Your task to perform on an android device: turn on javascript in the chrome app Image 0: 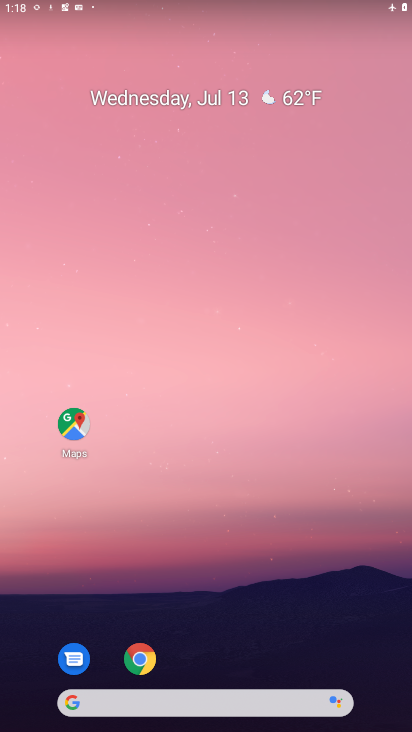
Step 0: drag from (230, 713) to (169, 49)
Your task to perform on an android device: turn on javascript in the chrome app Image 1: 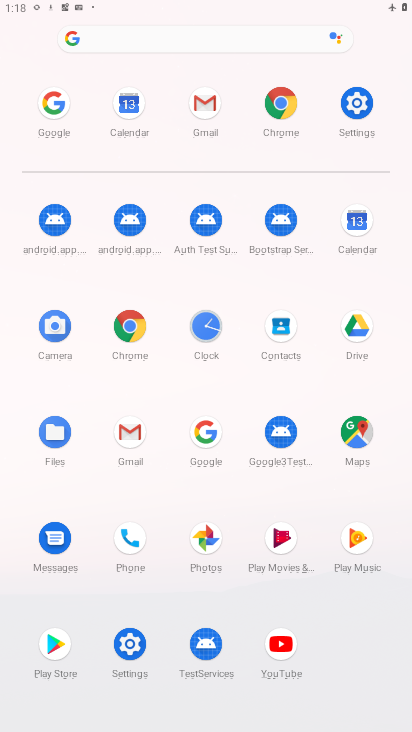
Step 1: click (132, 326)
Your task to perform on an android device: turn on javascript in the chrome app Image 2: 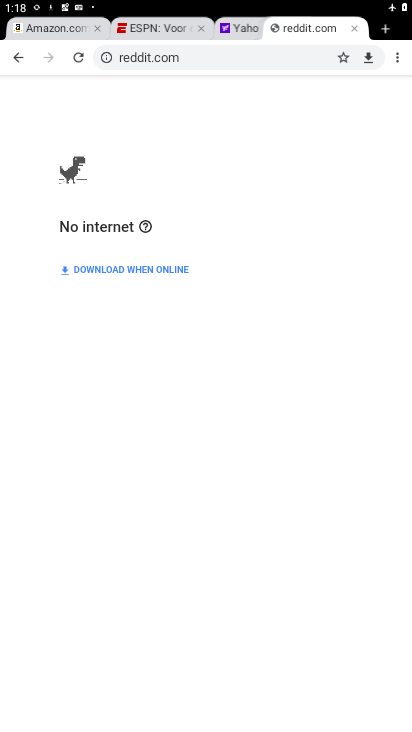
Step 2: click (399, 59)
Your task to perform on an android device: turn on javascript in the chrome app Image 3: 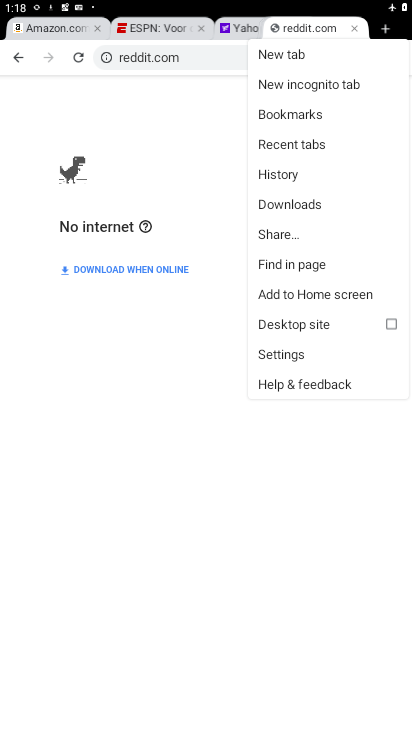
Step 3: click (275, 352)
Your task to perform on an android device: turn on javascript in the chrome app Image 4: 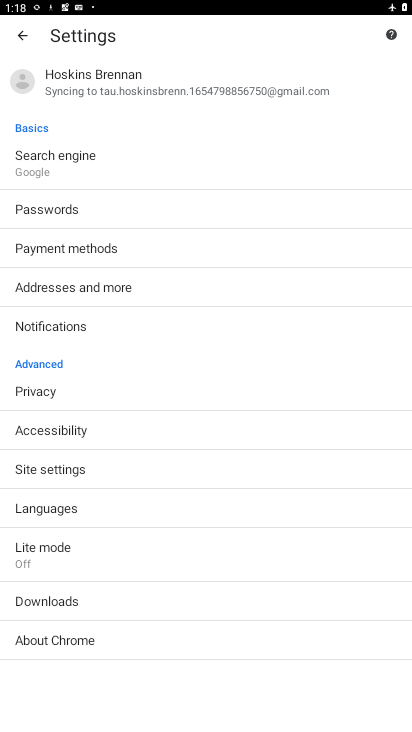
Step 4: click (48, 466)
Your task to perform on an android device: turn on javascript in the chrome app Image 5: 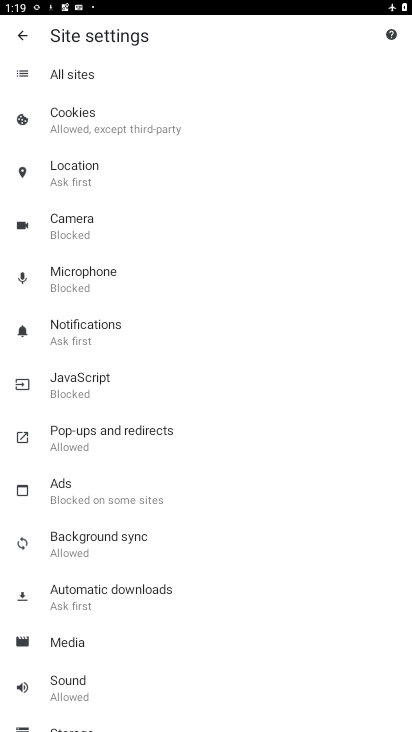
Step 5: click (75, 383)
Your task to perform on an android device: turn on javascript in the chrome app Image 6: 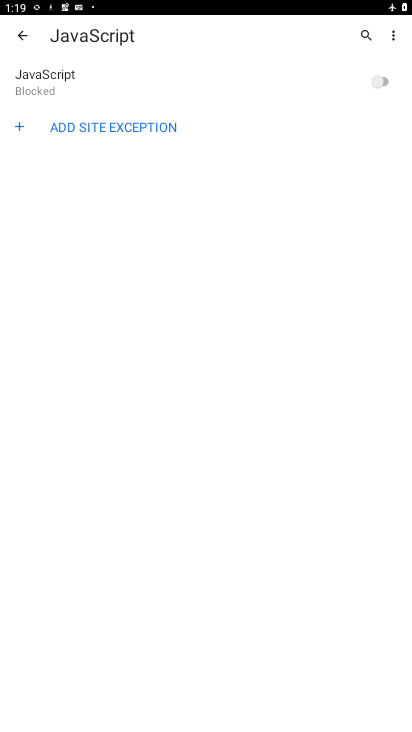
Step 6: click (382, 84)
Your task to perform on an android device: turn on javascript in the chrome app Image 7: 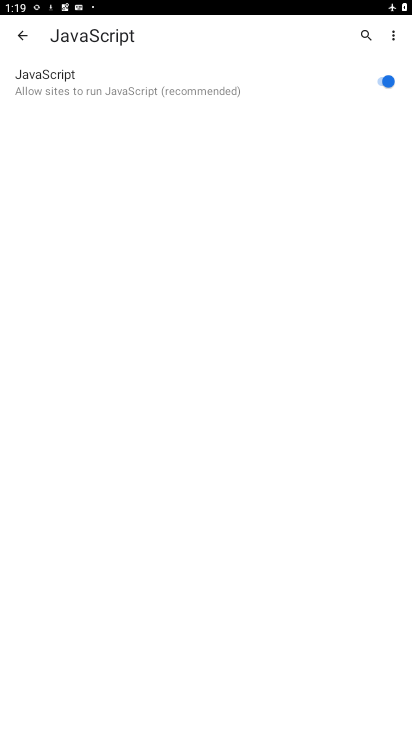
Step 7: task complete